Your task to perform on an android device: clear all cookies in the chrome app Image 0: 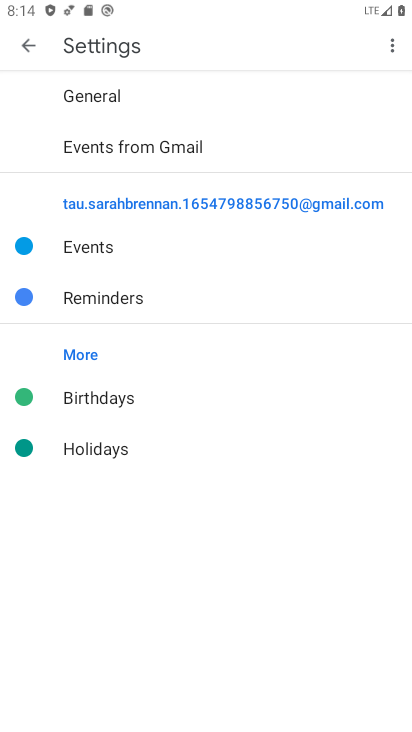
Step 0: press home button
Your task to perform on an android device: clear all cookies in the chrome app Image 1: 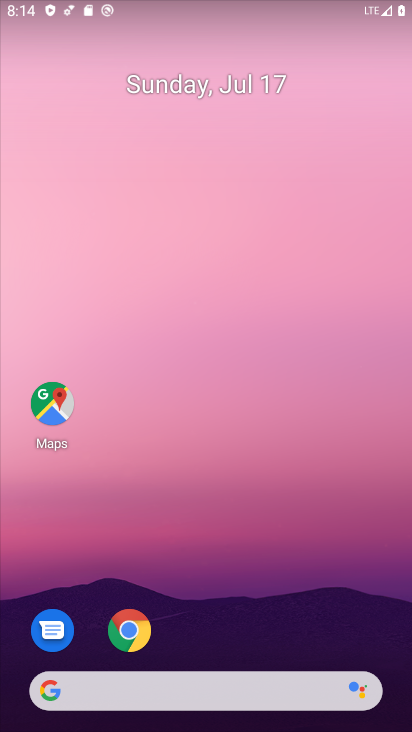
Step 1: click (130, 635)
Your task to perform on an android device: clear all cookies in the chrome app Image 2: 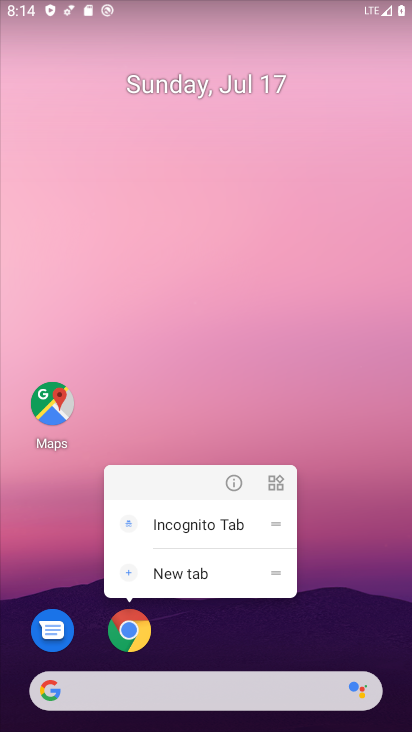
Step 2: click (145, 649)
Your task to perform on an android device: clear all cookies in the chrome app Image 3: 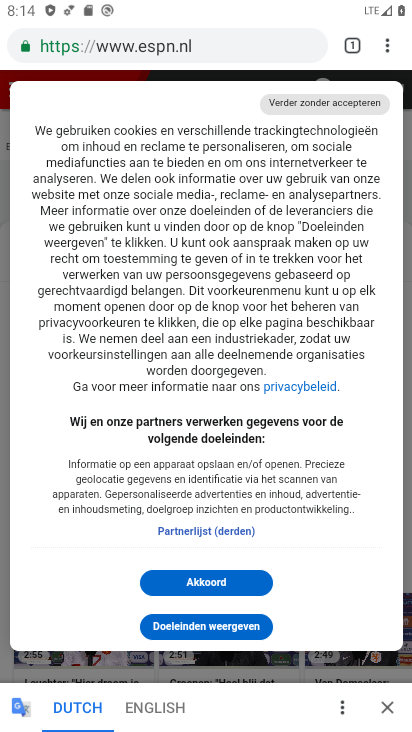
Step 3: click (392, 47)
Your task to perform on an android device: clear all cookies in the chrome app Image 4: 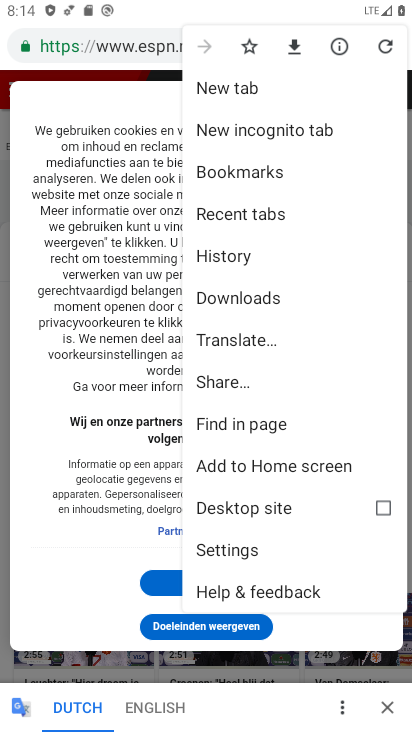
Step 4: click (240, 265)
Your task to perform on an android device: clear all cookies in the chrome app Image 5: 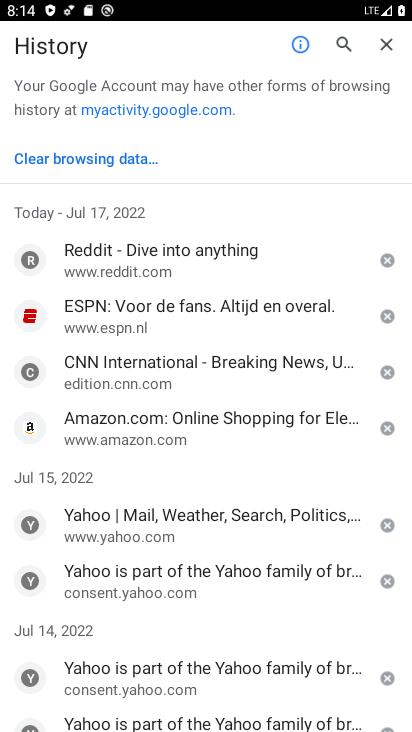
Step 5: click (78, 160)
Your task to perform on an android device: clear all cookies in the chrome app Image 6: 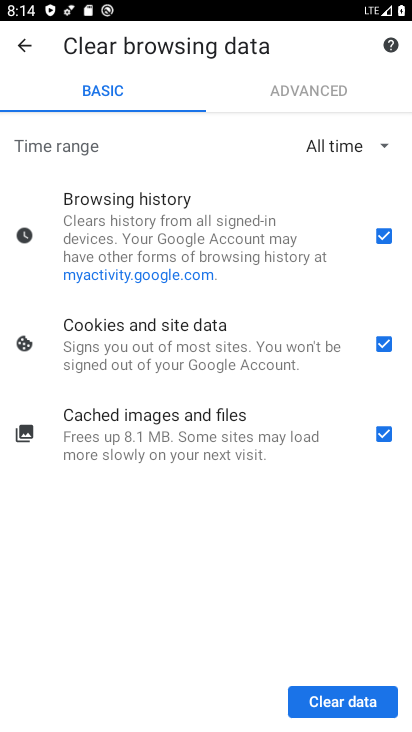
Step 6: click (386, 240)
Your task to perform on an android device: clear all cookies in the chrome app Image 7: 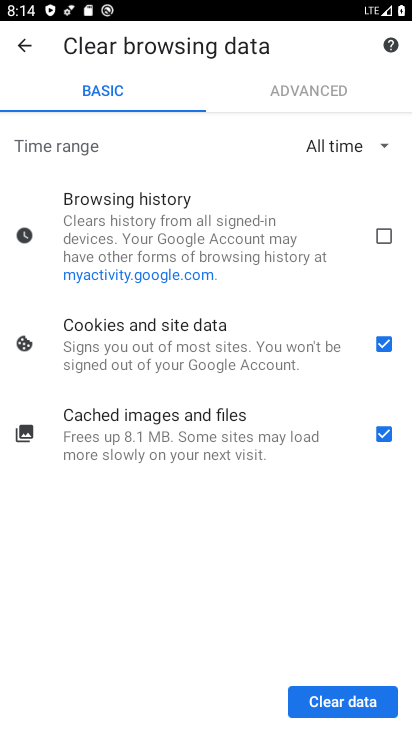
Step 7: click (378, 433)
Your task to perform on an android device: clear all cookies in the chrome app Image 8: 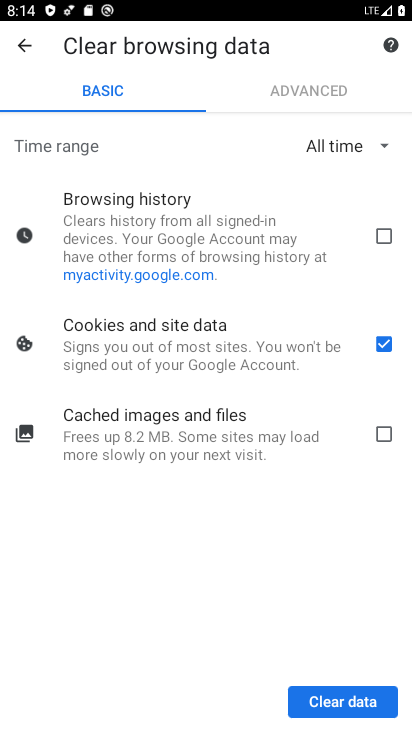
Step 8: click (345, 700)
Your task to perform on an android device: clear all cookies in the chrome app Image 9: 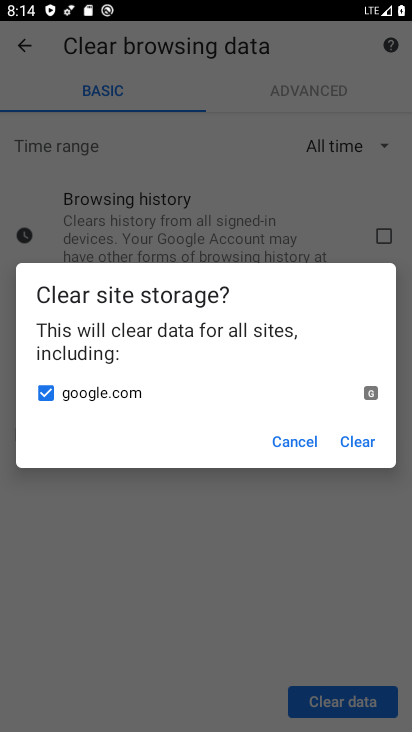
Step 9: click (364, 438)
Your task to perform on an android device: clear all cookies in the chrome app Image 10: 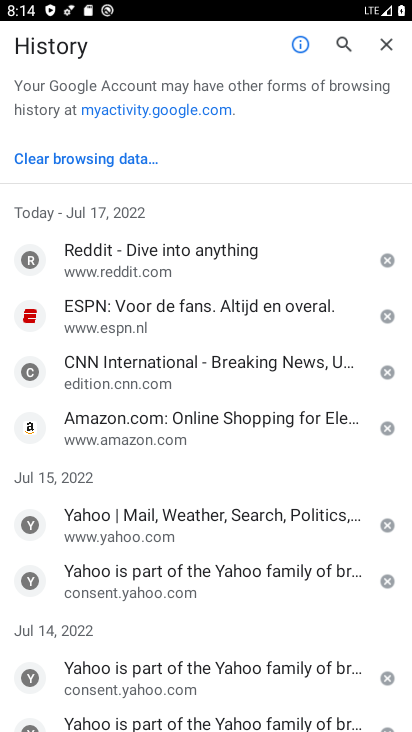
Step 10: task complete